Your task to perform on an android device: turn off picture-in-picture Image 0: 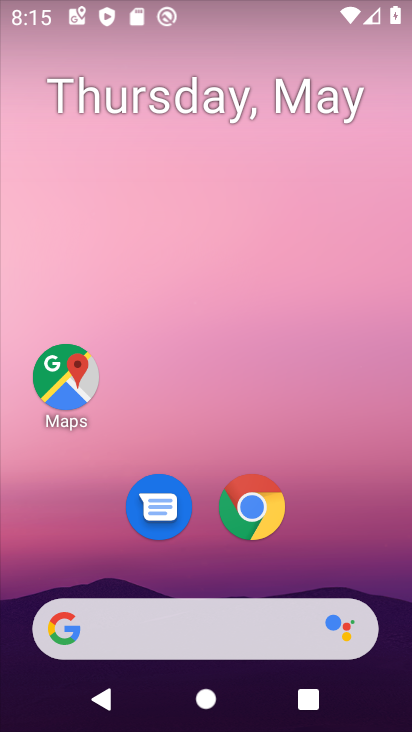
Step 0: drag from (277, 624) to (180, 272)
Your task to perform on an android device: turn off picture-in-picture Image 1: 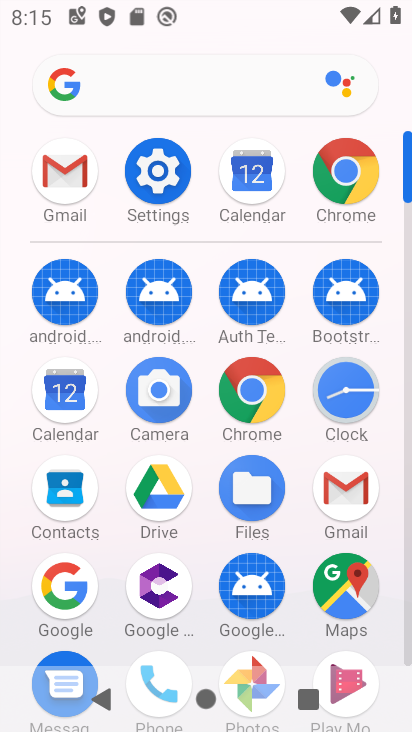
Step 1: click (152, 179)
Your task to perform on an android device: turn off picture-in-picture Image 2: 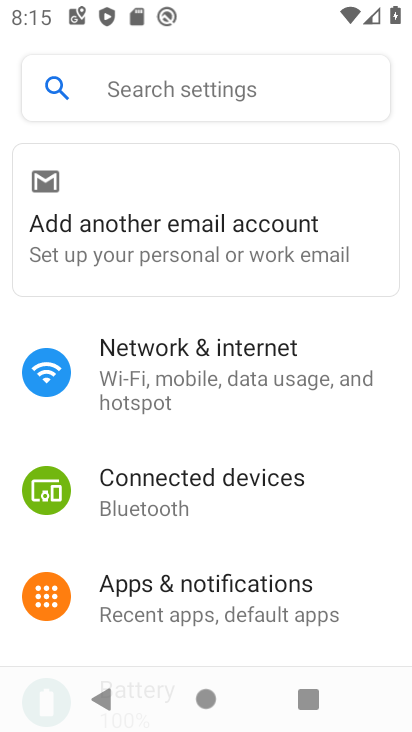
Step 2: click (164, 89)
Your task to perform on an android device: turn off picture-in-picture Image 3: 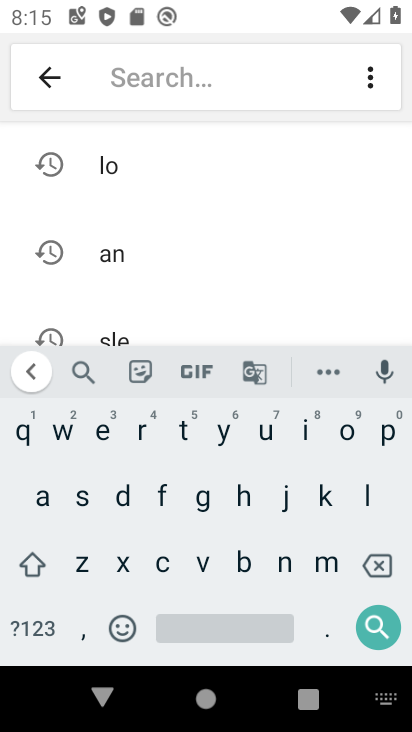
Step 3: click (383, 439)
Your task to perform on an android device: turn off picture-in-picture Image 4: 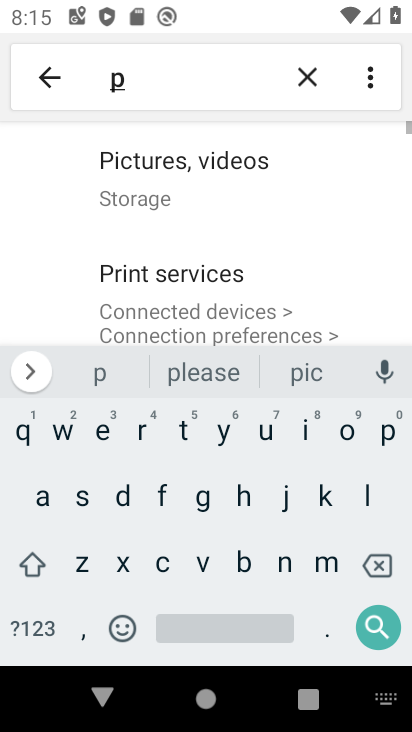
Step 4: click (303, 436)
Your task to perform on an android device: turn off picture-in-picture Image 5: 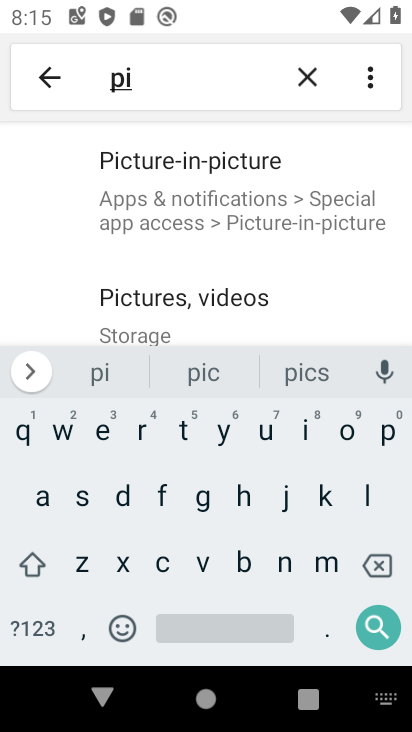
Step 5: click (211, 198)
Your task to perform on an android device: turn off picture-in-picture Image 6: 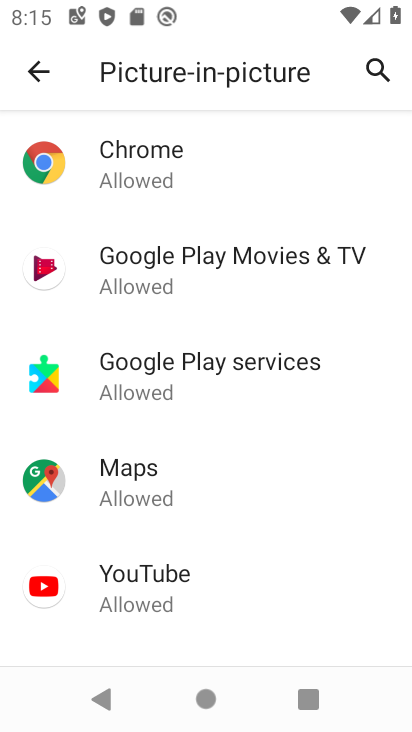
Step 6: task complete